Your task to perform on an android device: empty trash in google photos Image 0: 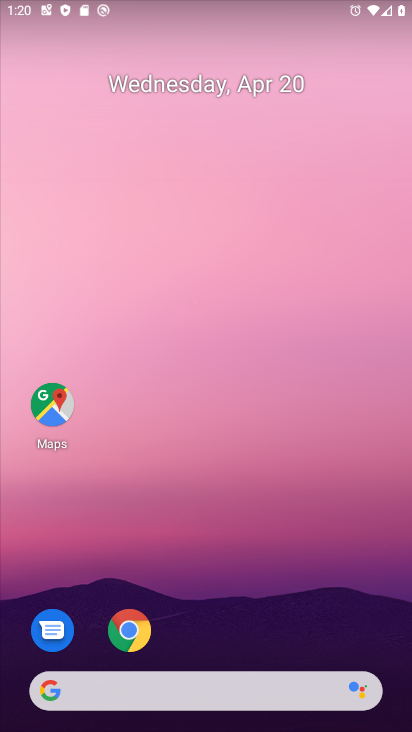
Step 0: drag from (200, 603) to (202, 150)
Your task to perform on an android device: empty trash in google photos Image 1: 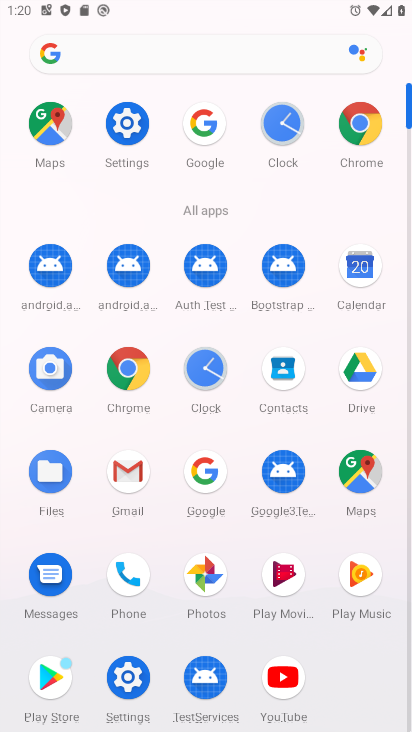
Step 1: click (202, 571)
Your task to perform on an android device: empty trash in google photos Image 2: 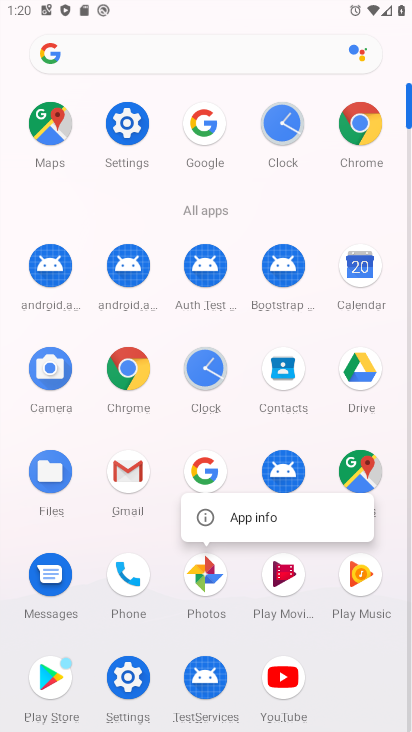
Step 2: click (205, 578)
Your task to perform on an android device: empty trash in google photos Image 3: 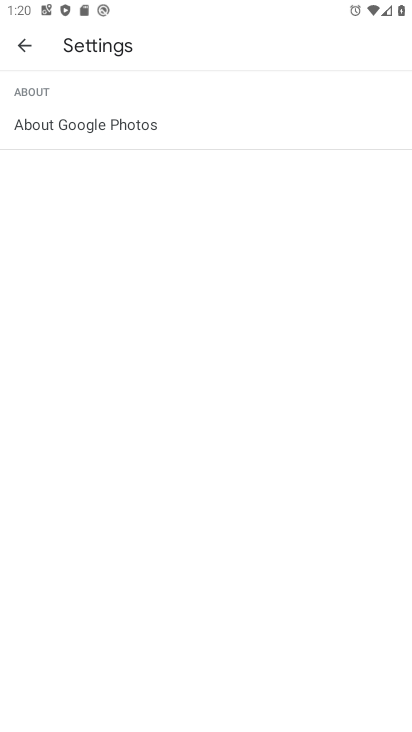
Step 3: click (23, 42)
Your task to perform on an android device: empty trash in google photos Image 4: 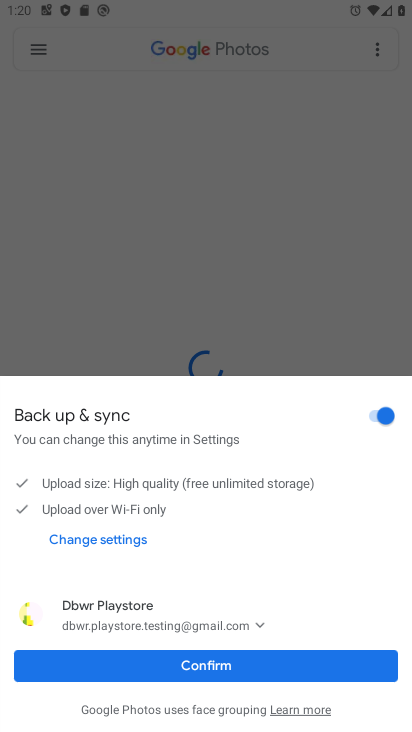
Step 4: click (182, 673)
Your task to perform on an android device: empty trash in google photos Image 5: 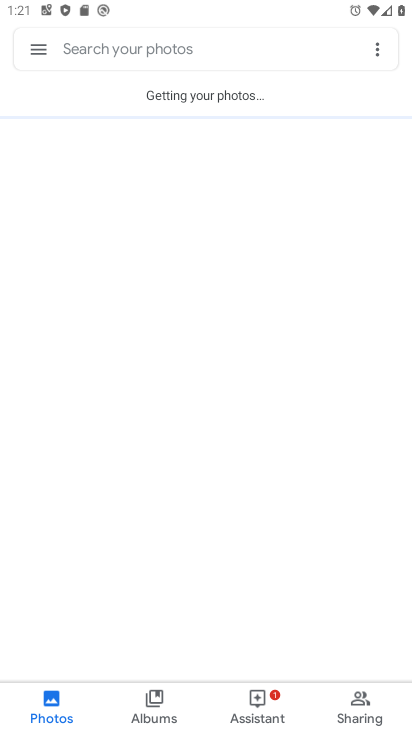
Step 5: click (37, 53)
Your task to perform on an android device: empty trash in google photos Image 6: 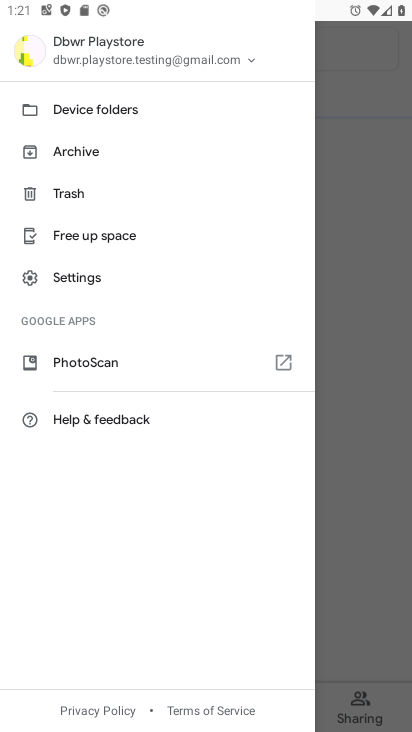
Step 6: click (51, 186)
Your task to perform on an android device: empty trash in google photos Image 7: 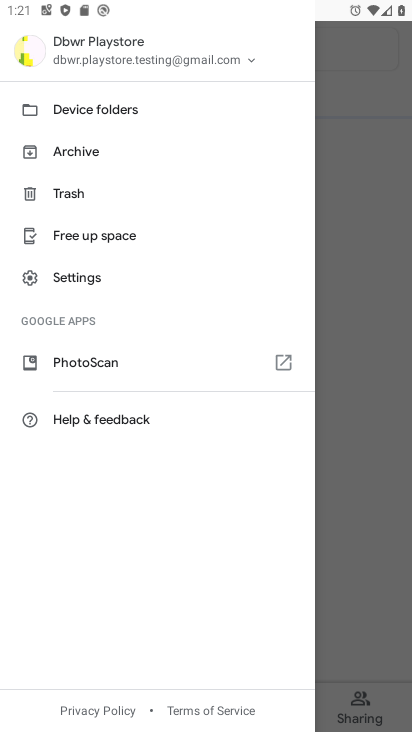
Step 7: click (69, 191)
Your task to perform on an android device: empty trash in google photos Image 8: 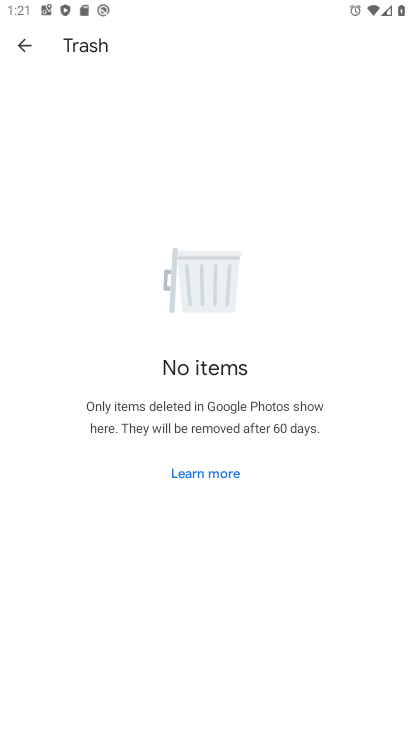
Step 8: task complete